Your task to perform on an android device: check android version Image 0: 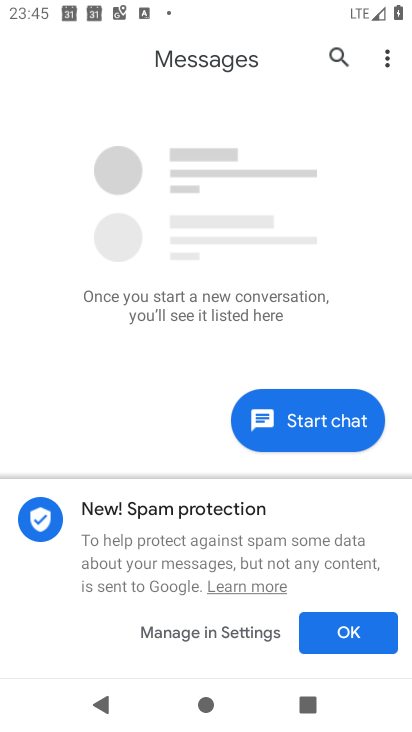
Step 0: drag from (391, 602) to (314, 221)
Your task to perform on an android device: check android version Image 1: 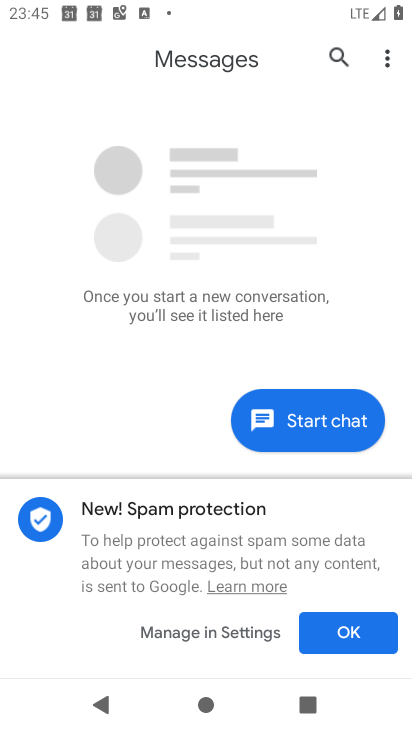
Step 1: press home button
Your task to perform on an android device: check android version Image 2: 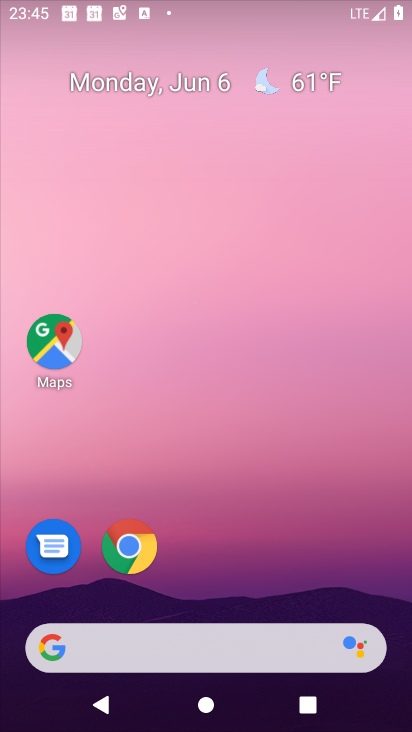
Step 2: drag from (344, 626) to (135, 58)
Your task to perform on an android device: check android version Image 3: 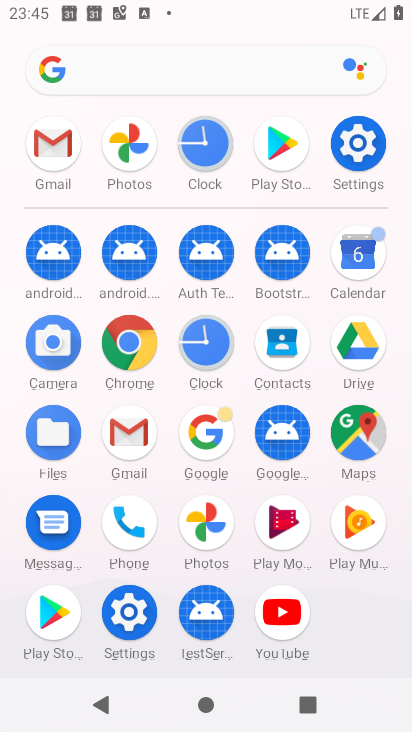
Step 3: click (130, 610)
Your task to perform on an android device: check android version Image 4: 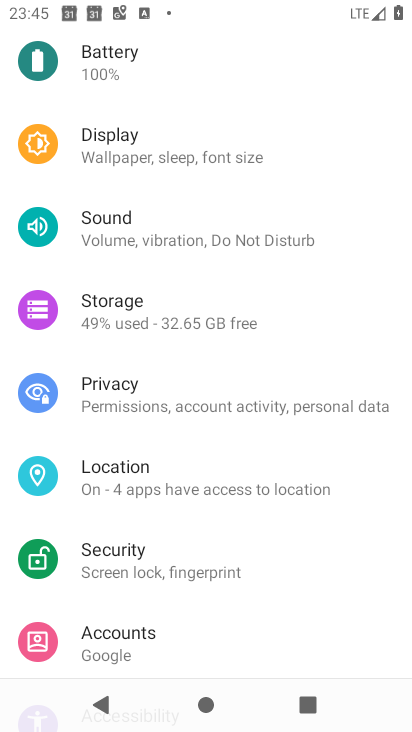
Step 4: drag from (282, 630) to (281, 217)
Your task to perform on an android device: check android version Image 5: 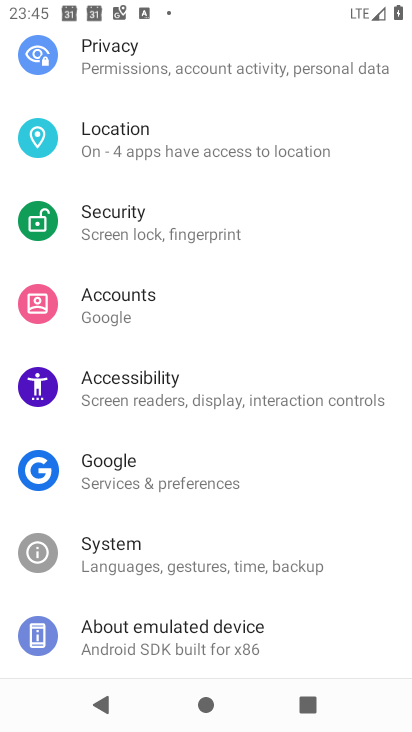
Step 5: click (197, 624)
Your task to perform on an android device: check android version Image 6: 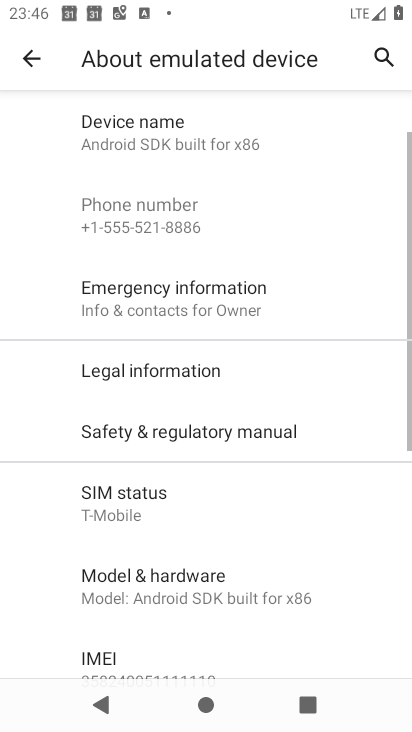
Step 6: drag from (268, 636) to (289, 248)
Your task to perform on an android device: check android version Image 7: 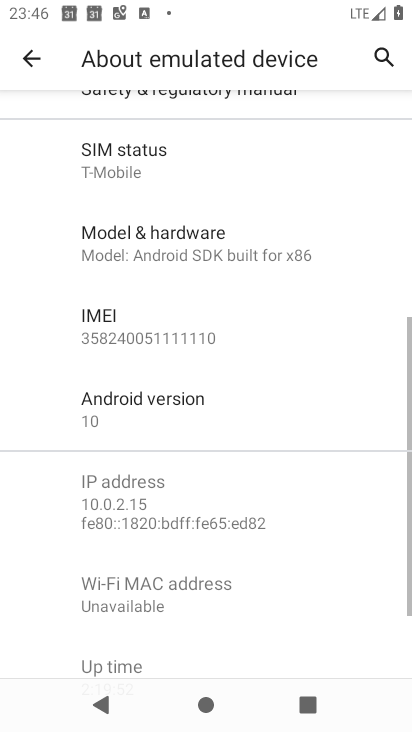
Step 7: click (144, 405)
Your task to perform on an android device: check android version Image 8: 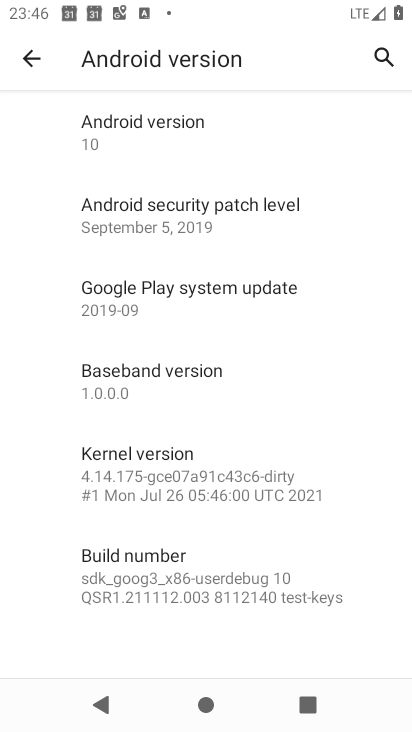
Step 8: task complete